Your task to perform on an android device: turn on showing notifications on the lock screen Image 0: 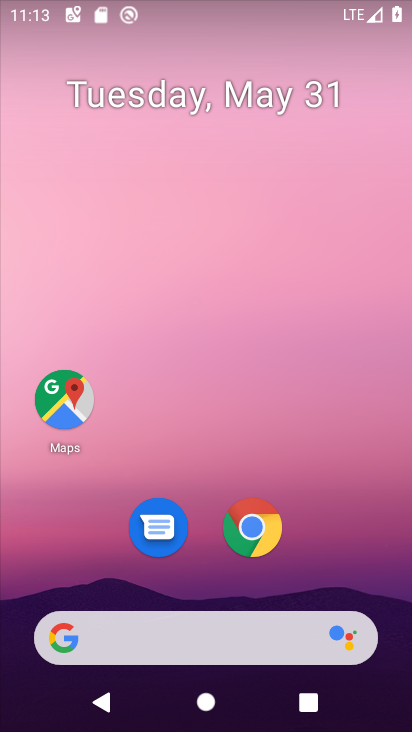
Step 0: drag from (354, 590) to (345, 15)
Your task to perform on an android device: turn on showing notifications on the lock screen Image 1: 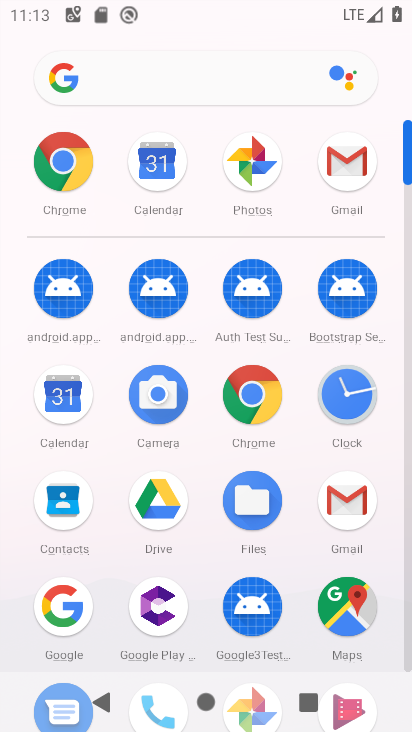
Step 1: click (406, 507)
Your task to perform on an android device: turn on showing notifications on the lock screen Image 2: 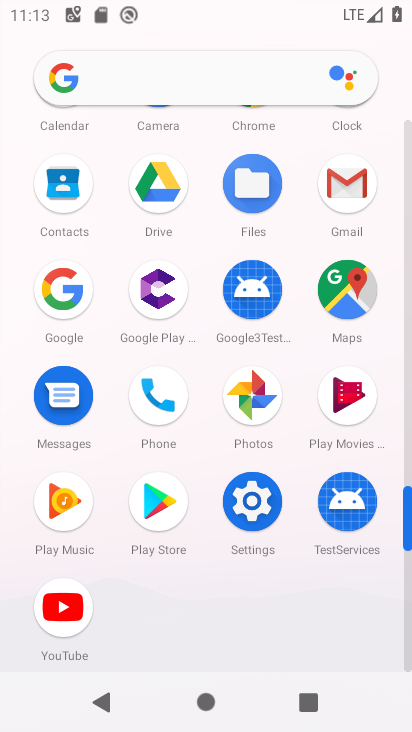
Step 2: click (256, 514)
Your task to perform on an android device: turn on showing notifications on the lock screen Image 3: 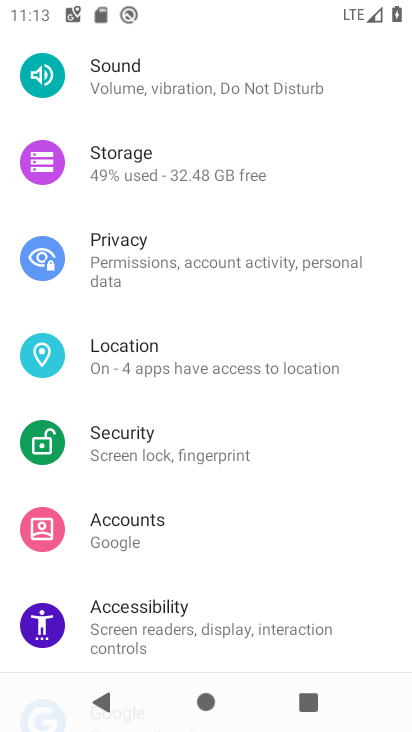
Step 3: drag from (242, 177) to (250, 455)
Your task to perform on an android device: turn on showing notifications on the lock screen Image 4: 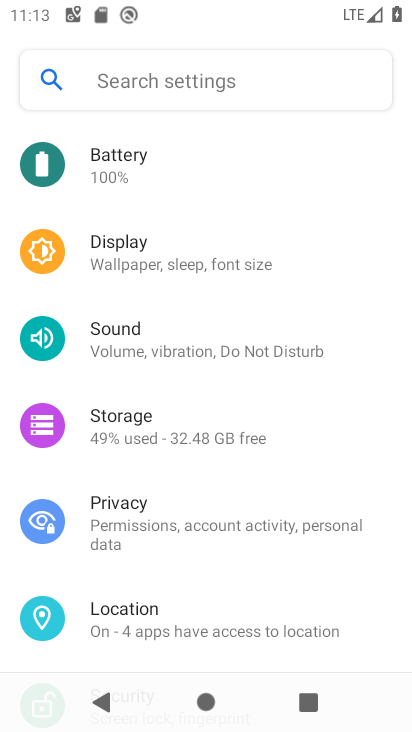
Step 4: drag from (192, 231) to (212, 538)
Your task to perform on an android device: turn on showing notifications on the lock screen Image 5: 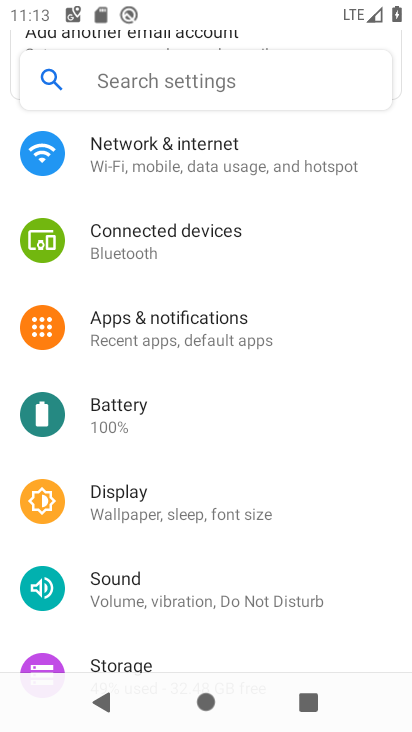
Step 5: click (158, 330)
Your task to perform on an android device: turn on showing notifications on the lock screen Image 6: 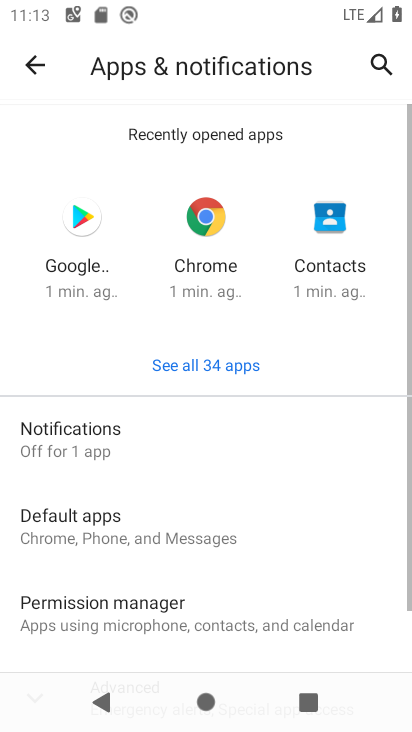
Step 6: click (70, 436)
Your task to perform on an android device: turn on showing notifications on the lock screen Image 7: 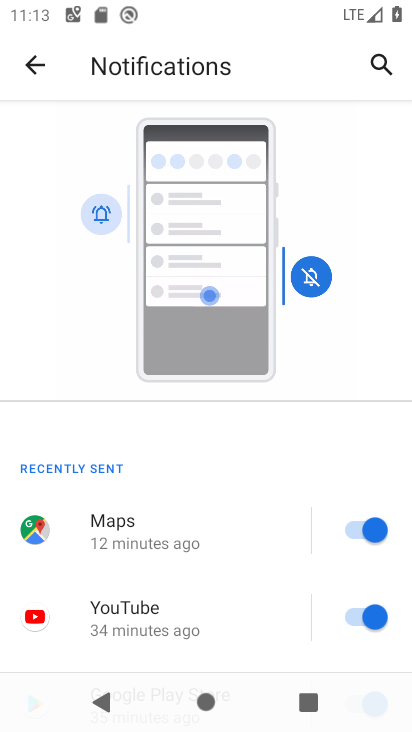
Step 7: drag from (200, 559) to (208, 218)
Your task to perform on an android device: turn on showing notifications on the lock screen Image 8: 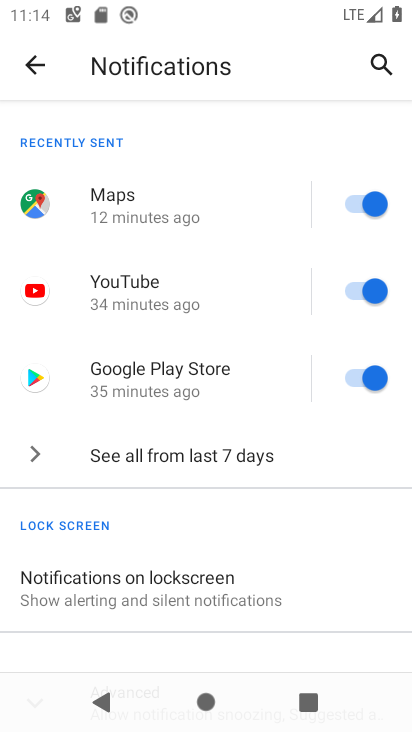
Step 8: click (141, 585)
Your task to perform on an android device: turn on showing notifications on the lock screen Image 9: 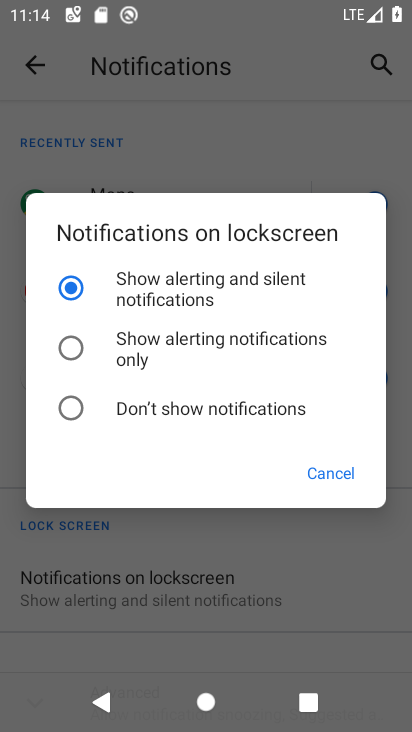
Step 9: task complete